Your task to perform on an android device: Add "razer nari" to the cart on walmart.com, then select checkout. Image 0: 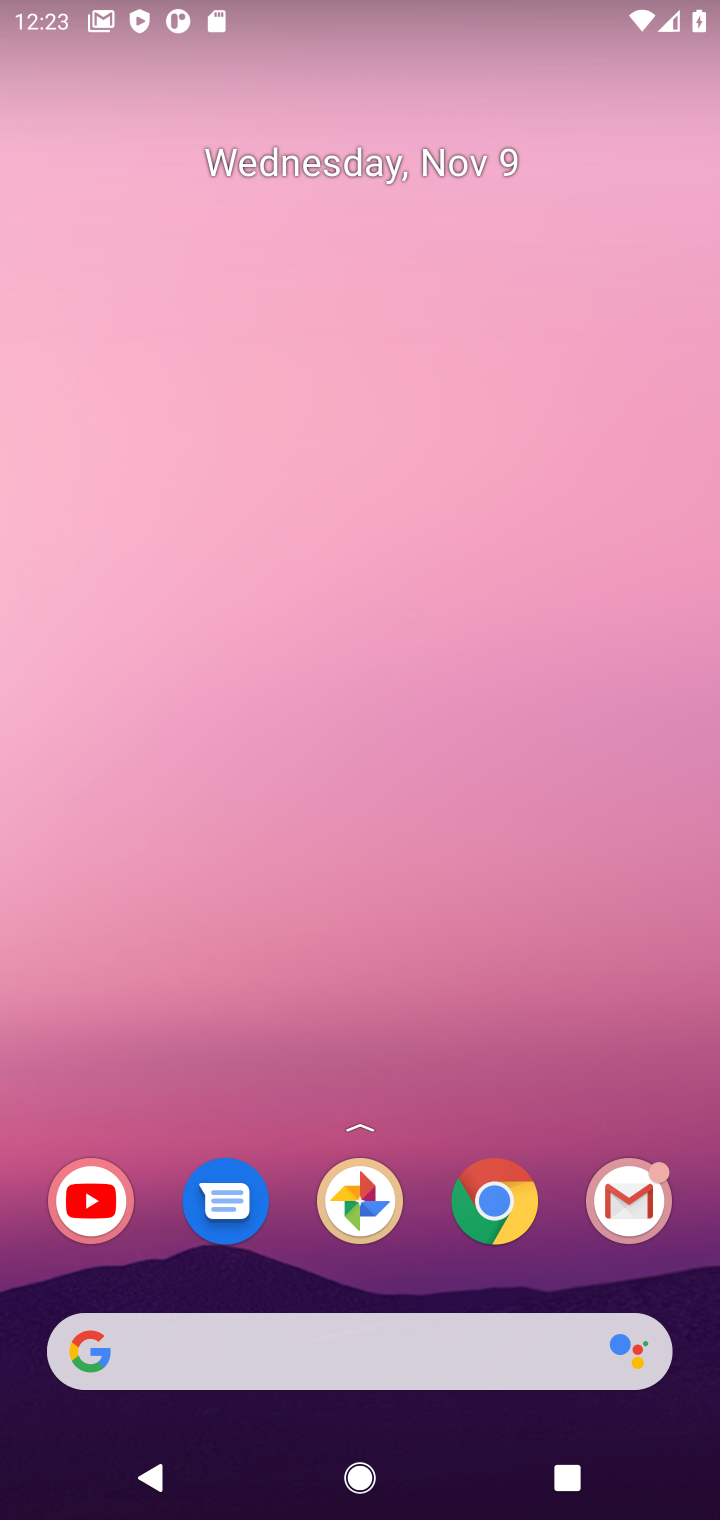
Step 0: click (336, 1372)
Your task to perform on an android device: Add "razer nari" to the cart on walmart.com, then select checkout. Image 1: 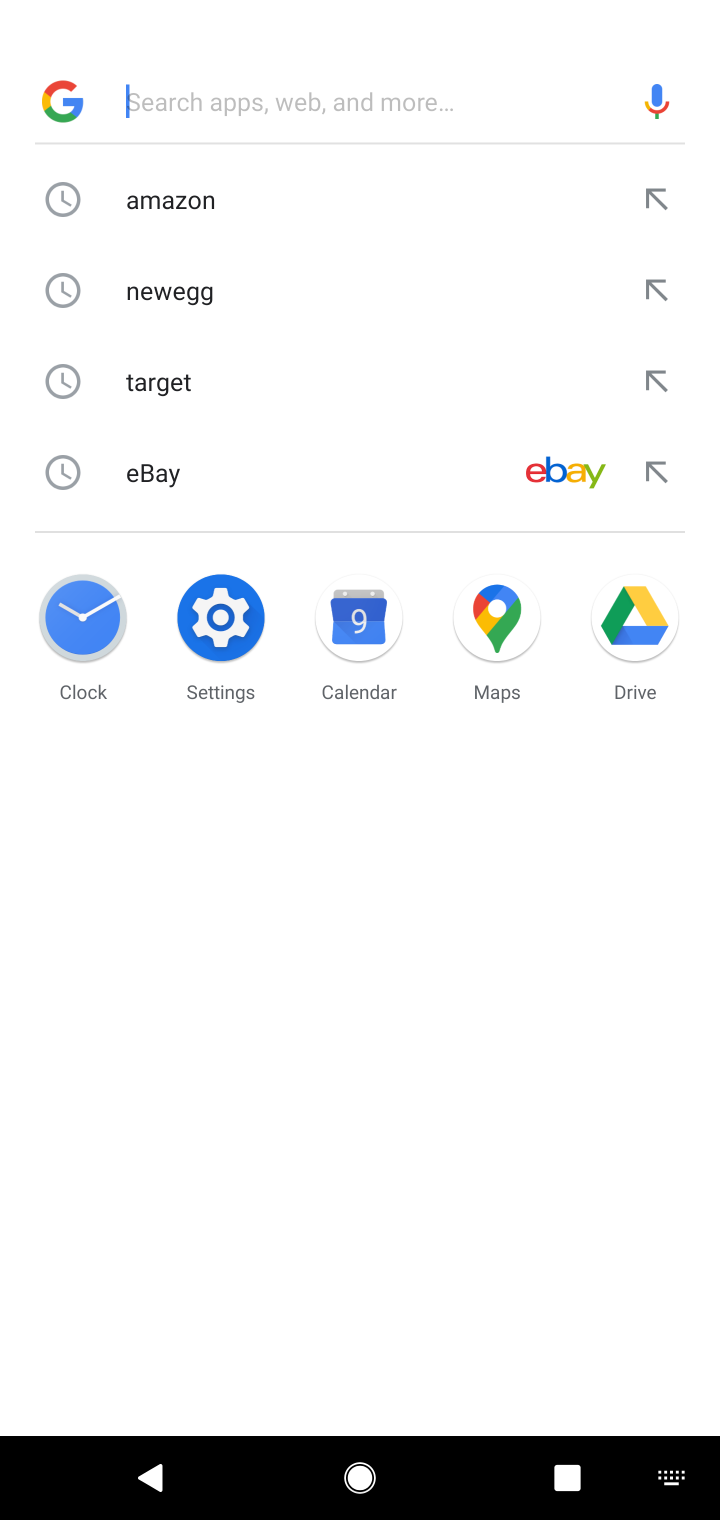
Step 1: type "walmart.com"
Your task to perform on an android device: Add "razer nari" to the cart on walmart.com, then select checkout. Image 2: 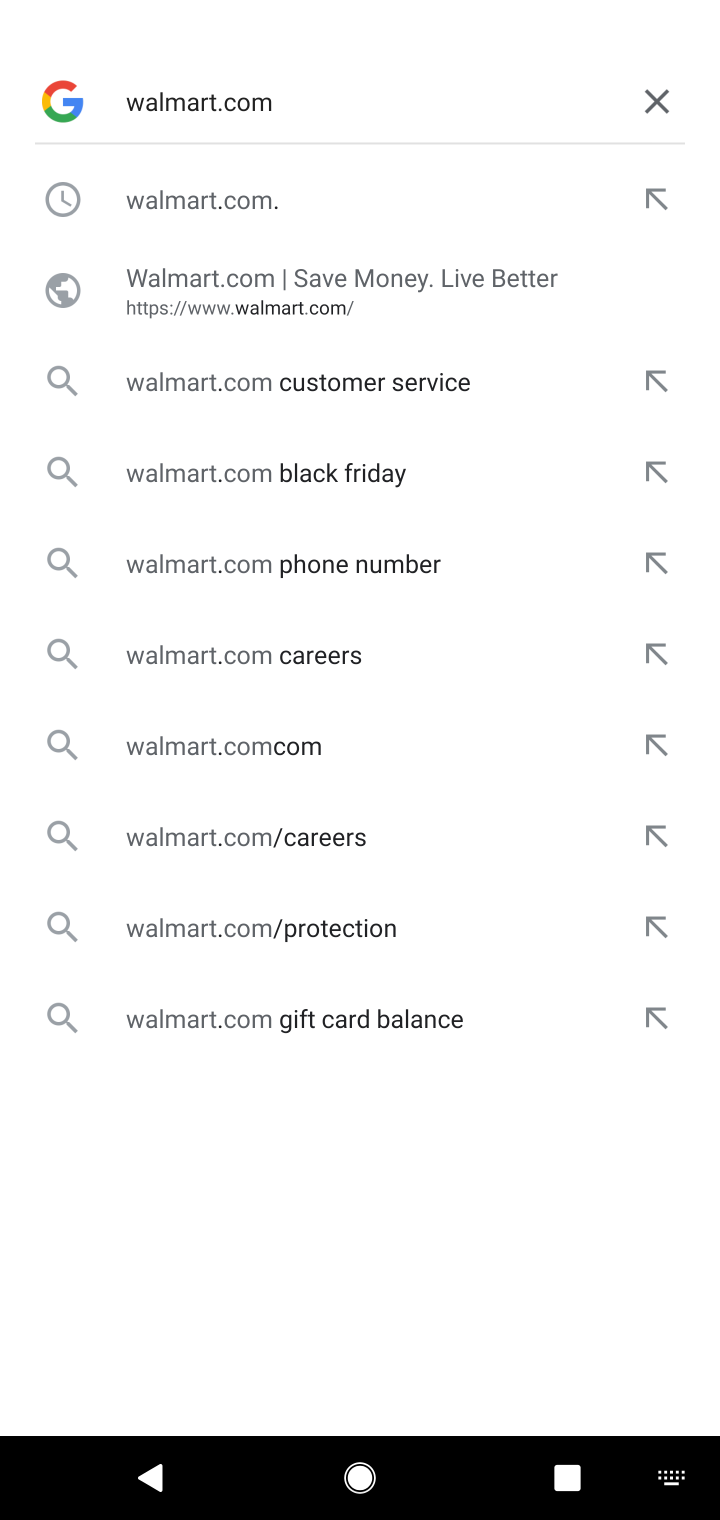
Step 2: click (221, 301)
Your task to perform on an android device: Add "razer nari" to the cart on walmart.com, then select checkout. Image 3: 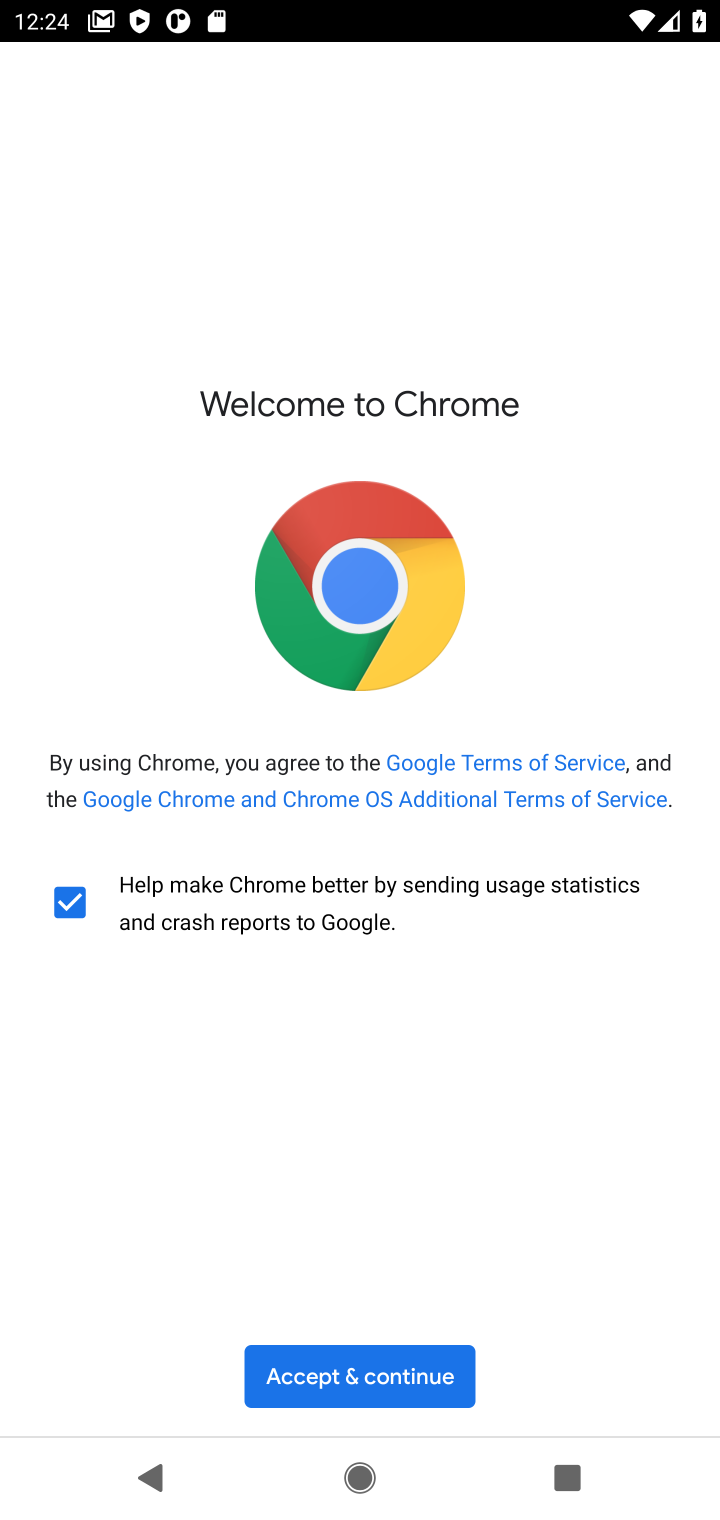
Step 3: click (314, 1376)
Your task to perform on an android device: Add "razer nari" to the cart on walmart.com, then select checkout. Image 4: 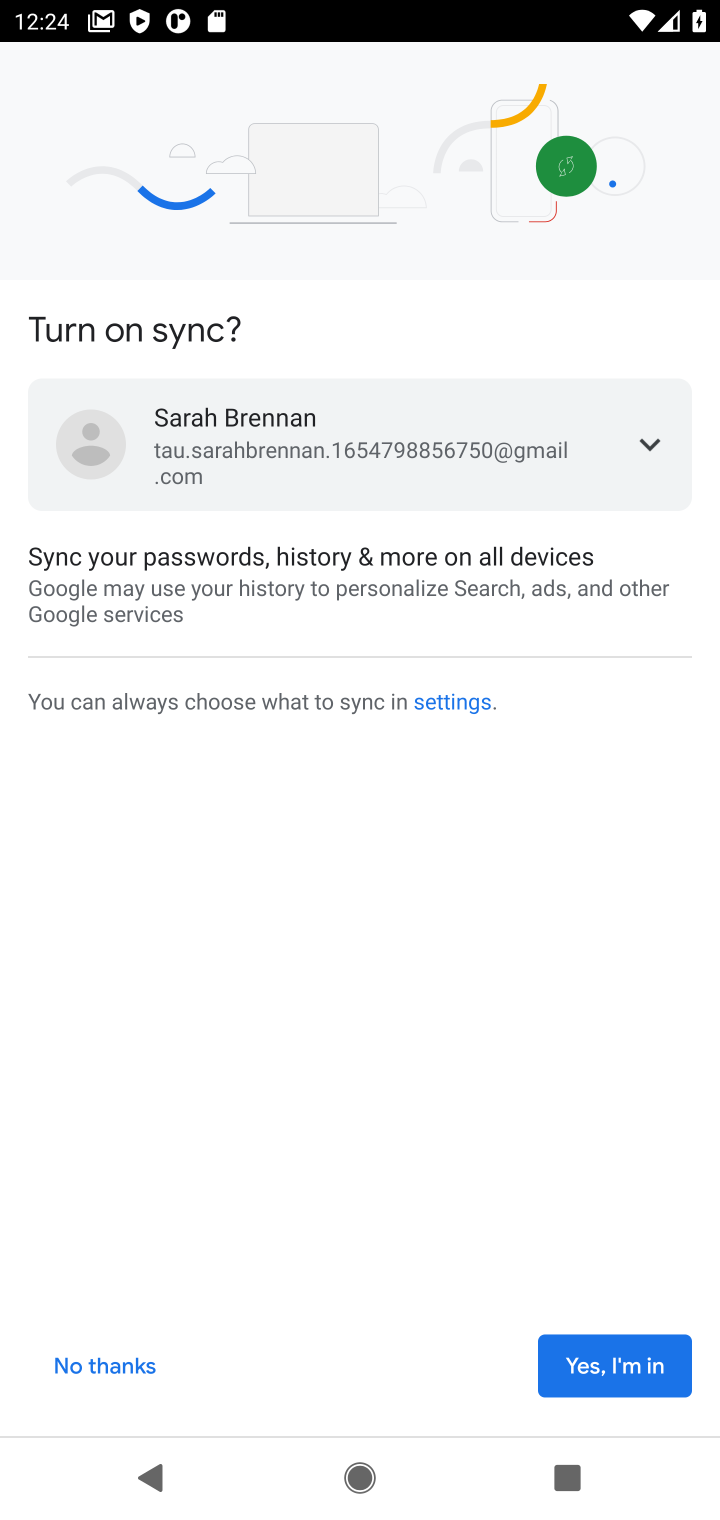
Step 4: click (574, 1380)
Your task to perform on an android device: Add "razer nari" to the cart on walmart.com, then select checkout. Image 5: 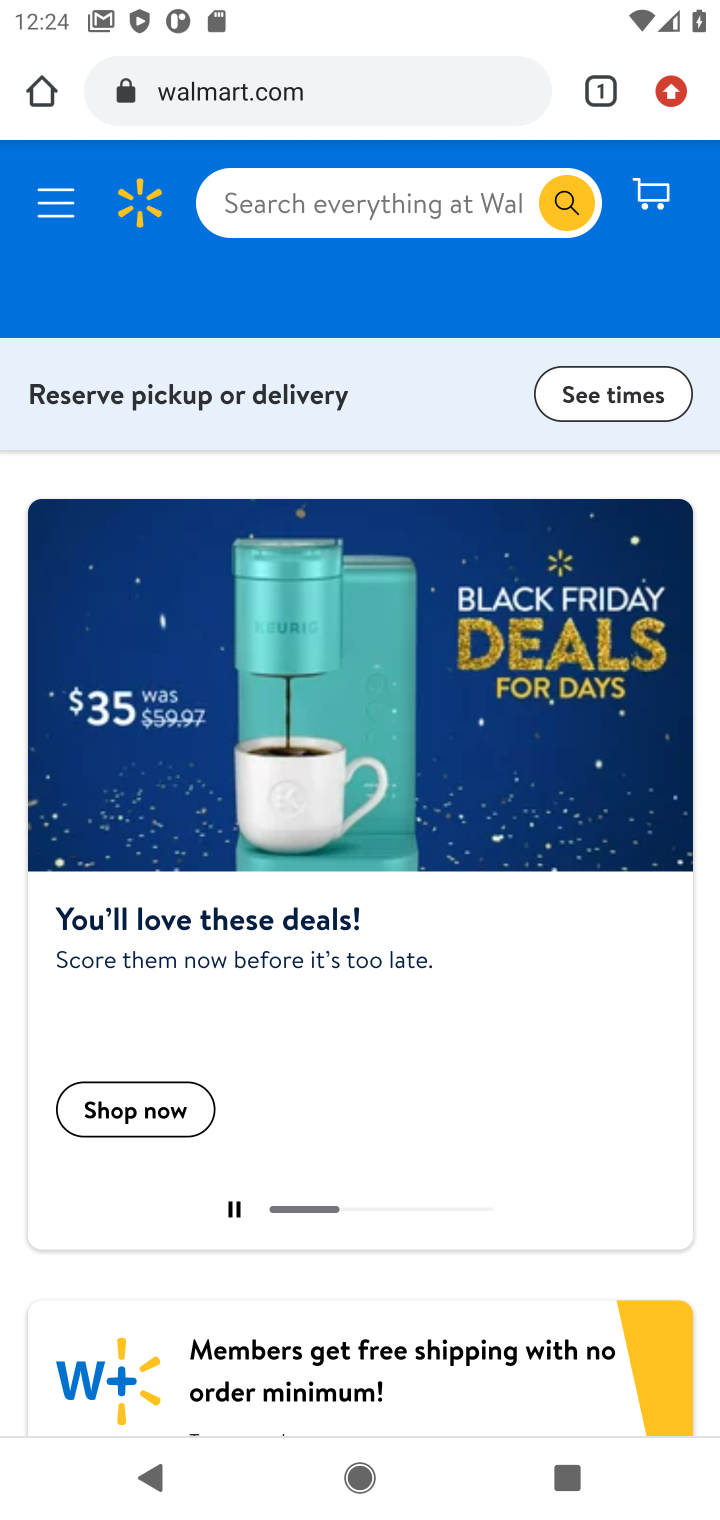
Step 5: click (339, 219)
Your task to perform on an android device: Add "razer nari" to the cart on walmart.com, then select checkout. Image 6: 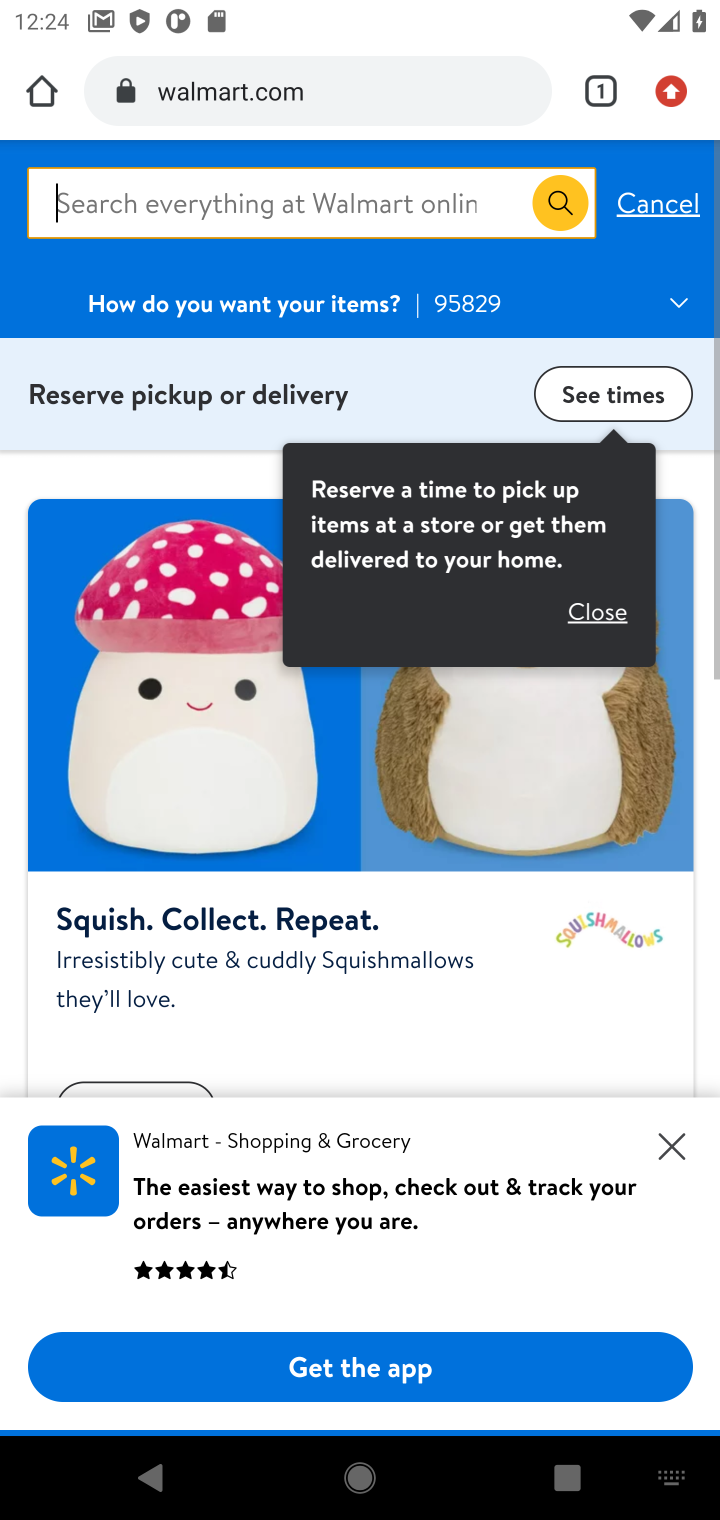
Step 6: click (310, 215)
Your task to perform on an android device: Add "razer nari" to the cart on walmart.com, then select checkout. Image 7: 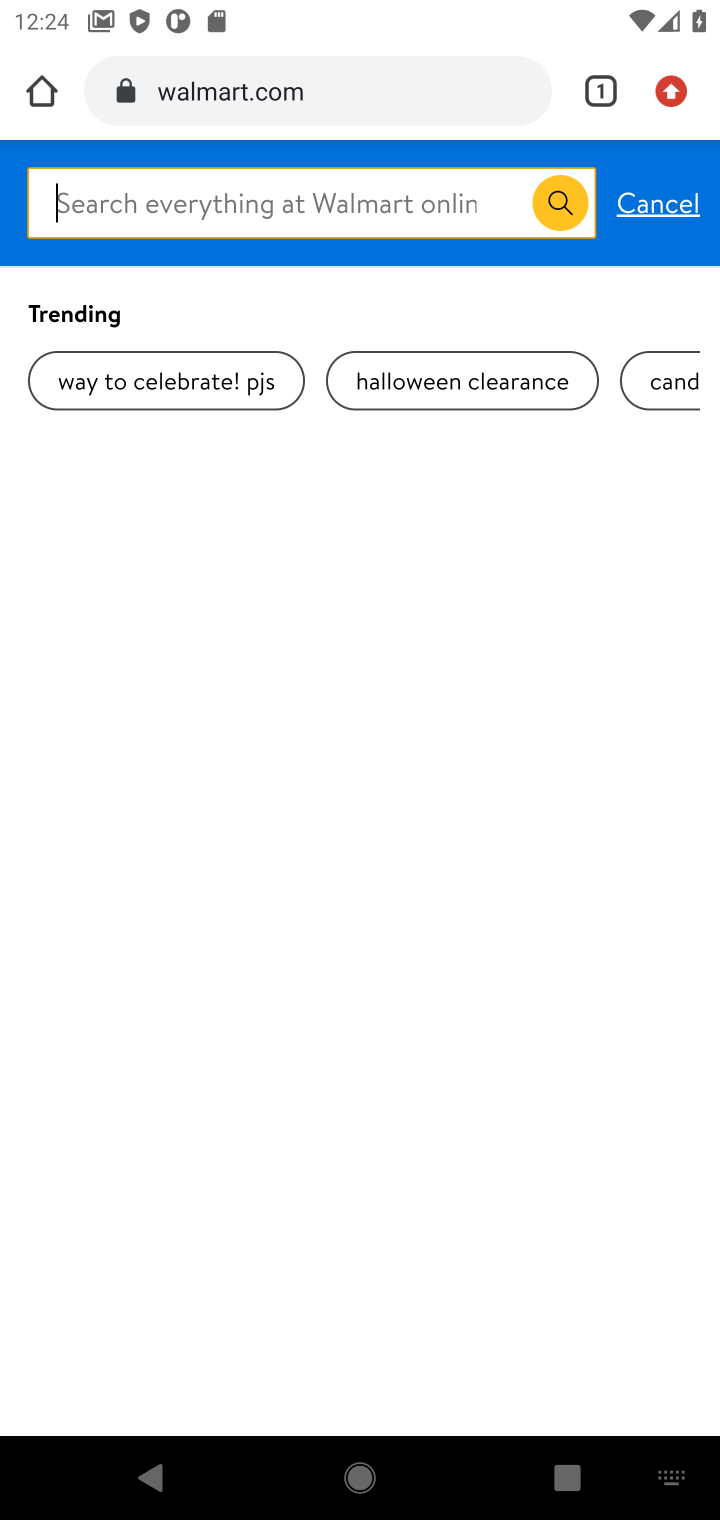
Step 7: type "razer nari"
Your task to perform on an android device: Add "razer nari" to the cart on walmart.com, then select checkout. Image 8: 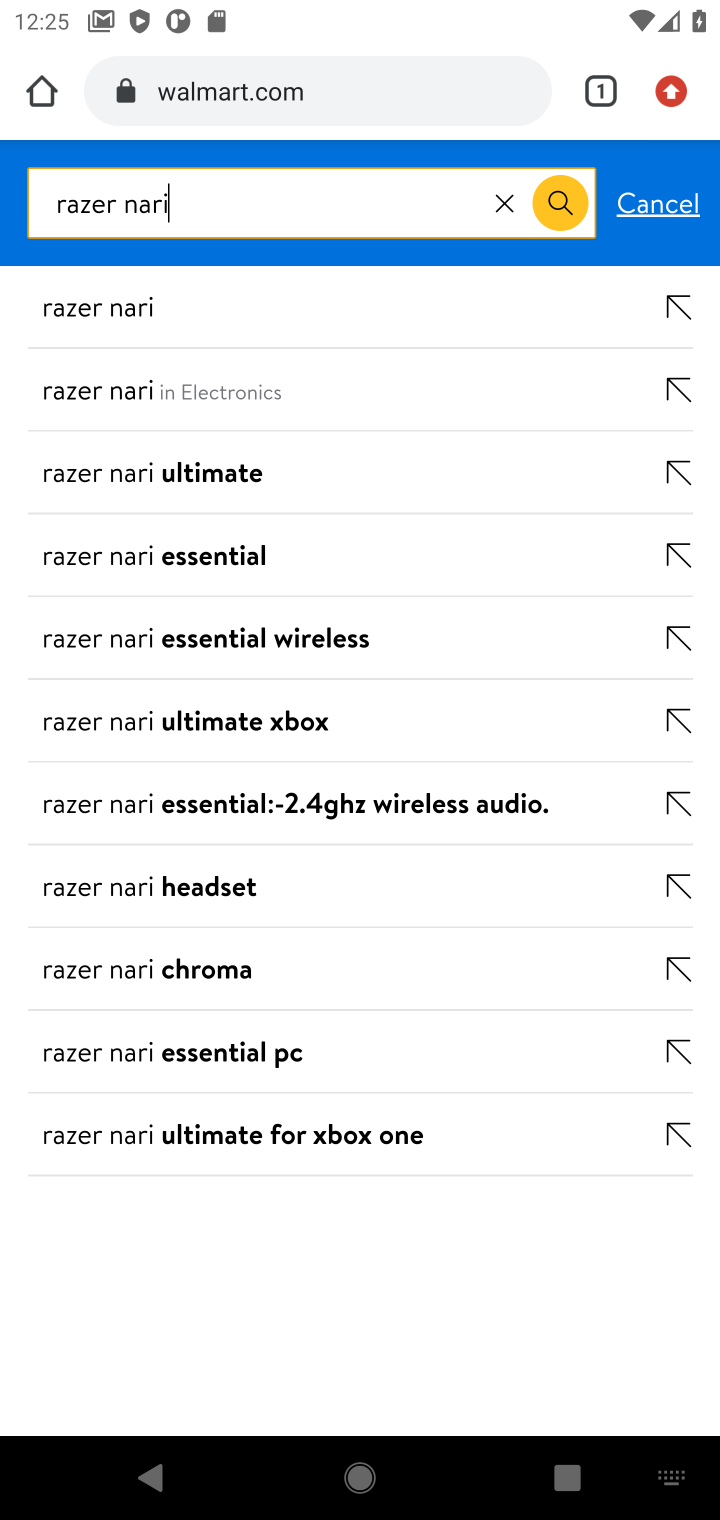
Step 8: click (427, 317)
Your task to perform on an android device: Add "razer nari" to the cart on walmart.com, then select checkout. Image 9: 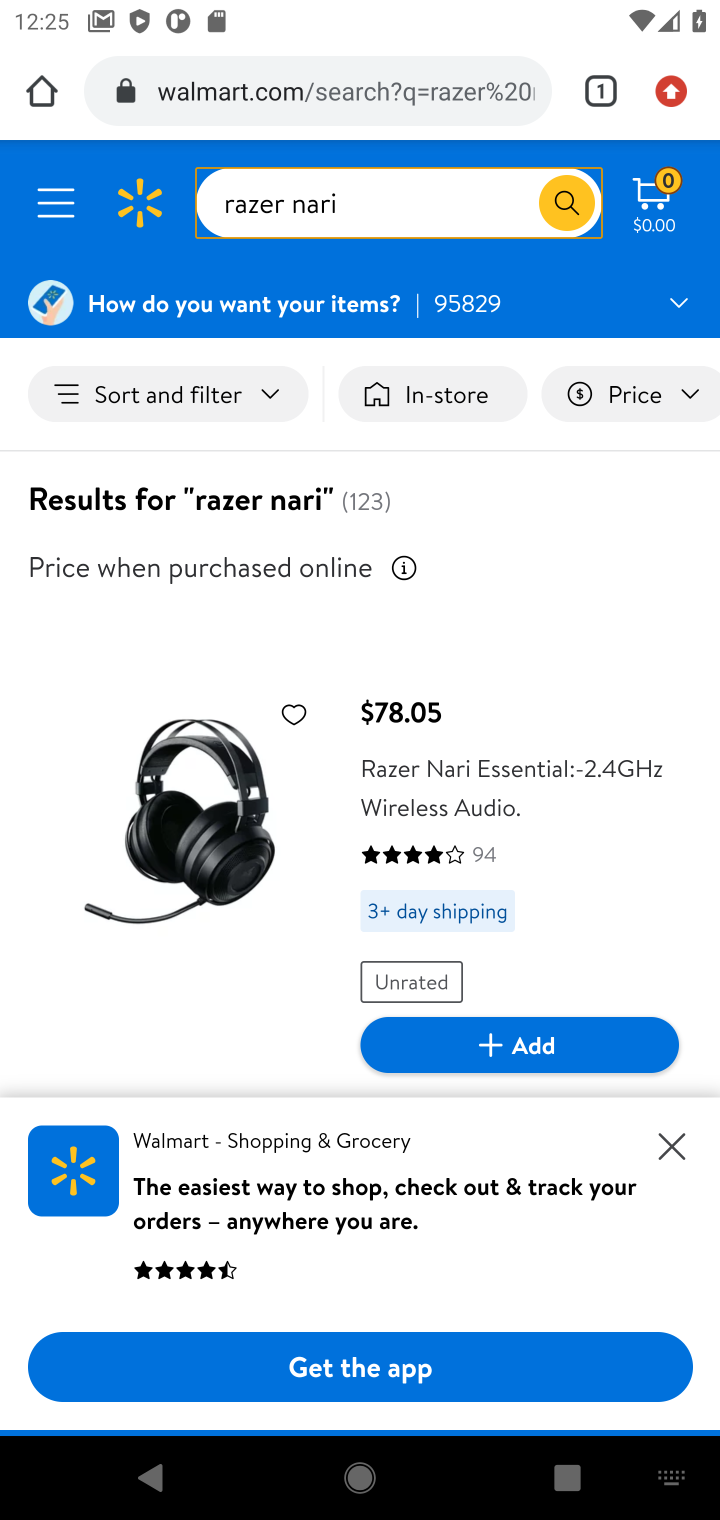
Step 9: click (438, 1042)
Your task to perform on an android device: Add "razer nari" to the cart on walmart.com, then select checkout. Image 10: 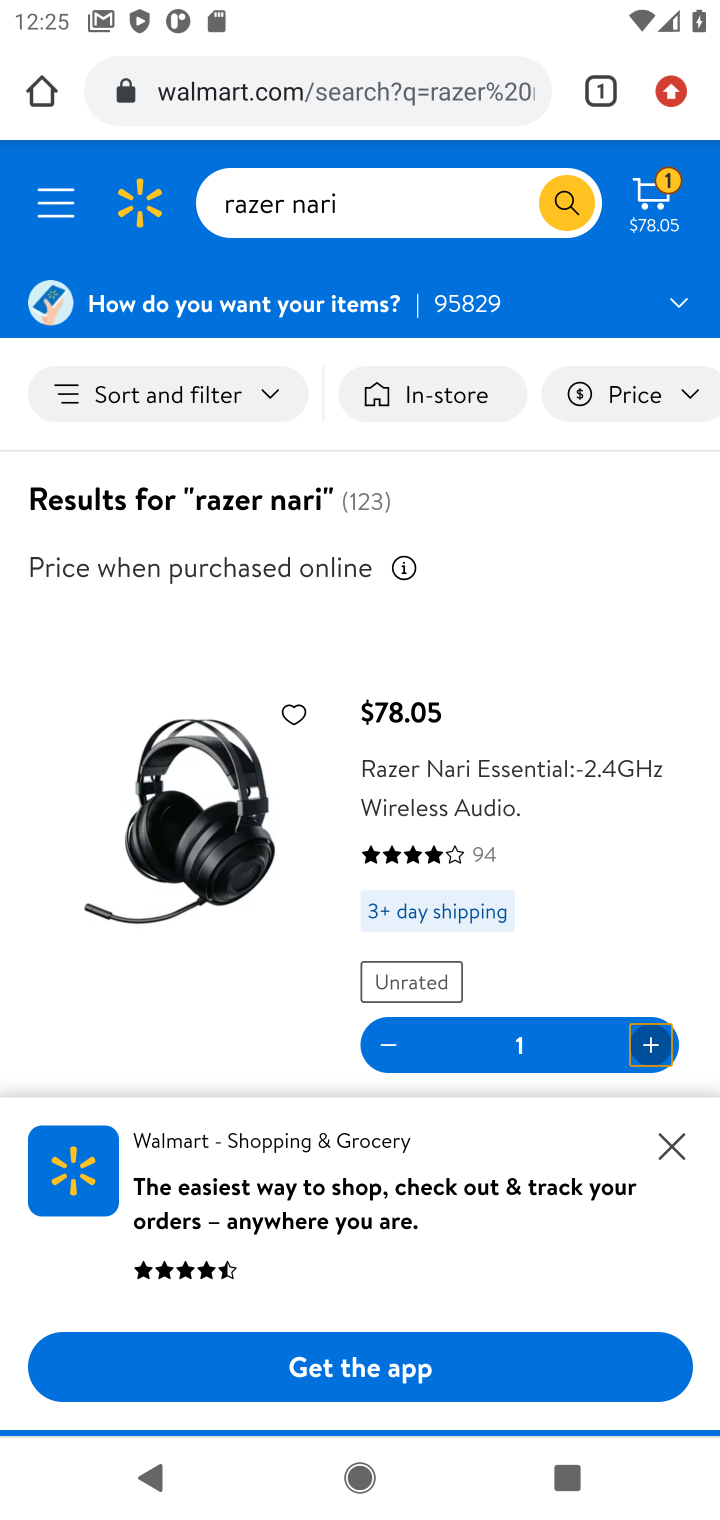
Step 10: click (665, 1134)
Your task to perform on an android device: Add "razer nari" to the cart on walmart.com, then select checkout. Image 11: 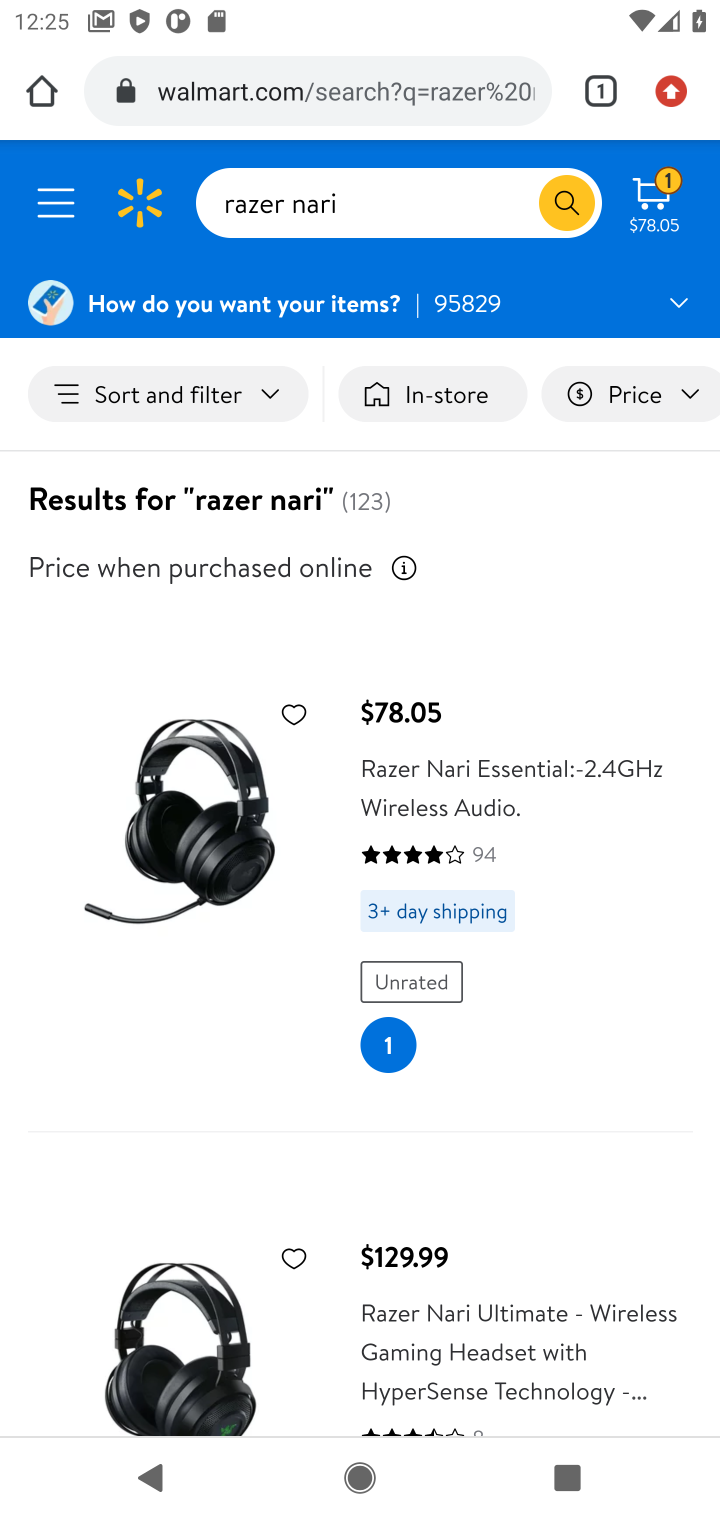
Step 11: click (666, 203)
Your task to perform on an android device: Add "razer nari" to the cart on walmart.com, then select checkout. Image 12: 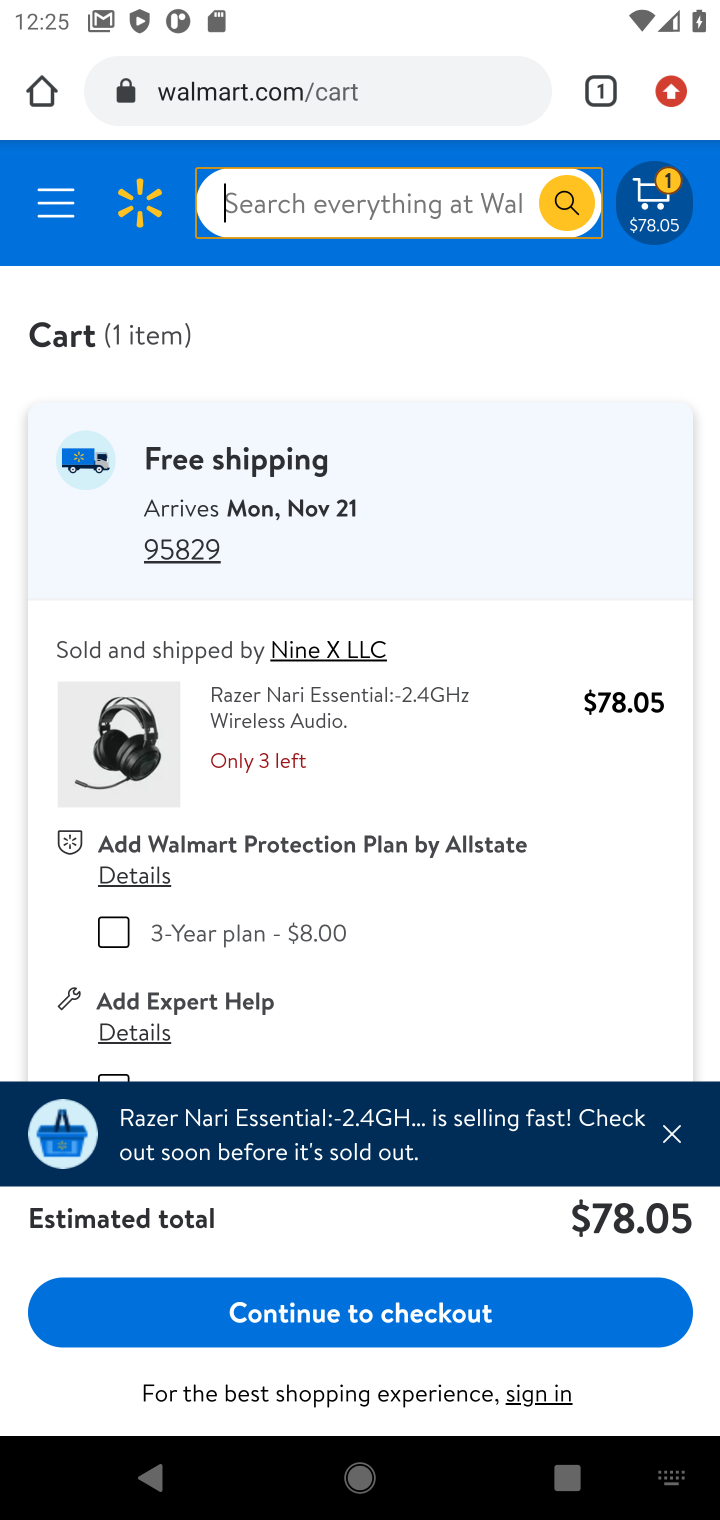
Step 12: click (678, 1138)
Your task to perform on an android device: Add "razer nari" to the cart on walmart.com, then select checkout. Image 13: 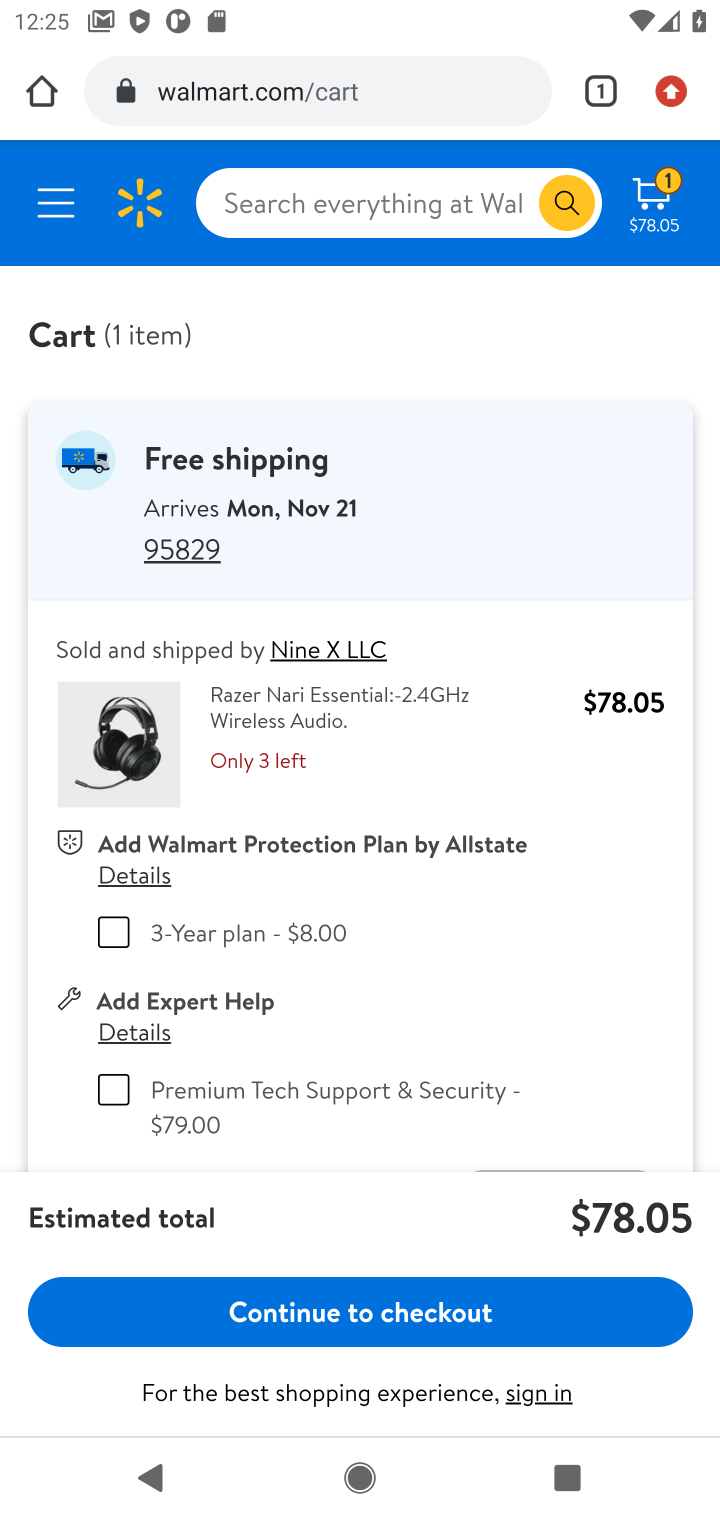
Step 13: click (419, 1308)
Your task to perform on an android device: Add "razer nari" to the cart on walmart.com, then select checkout. Image 14: 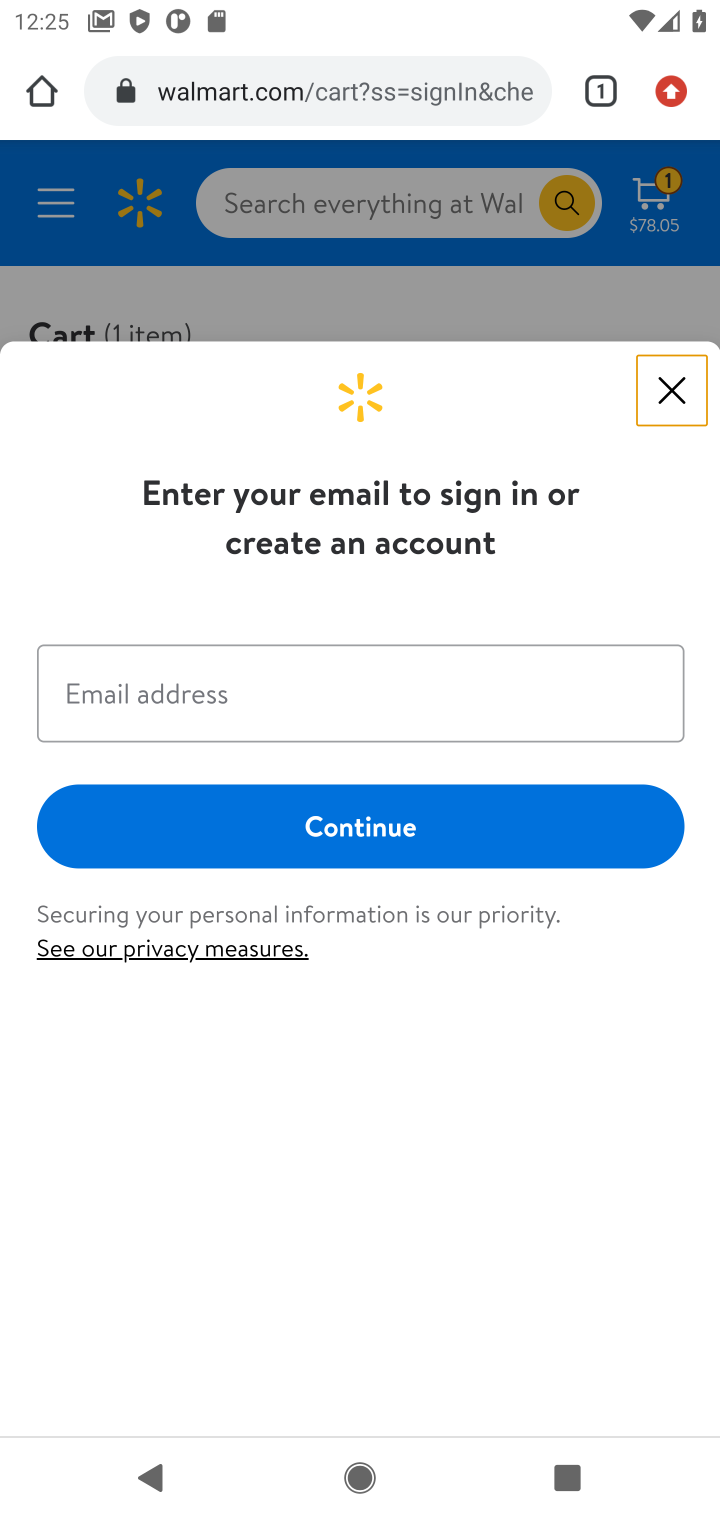
Step 14: task complete